Your task to perform on an android device: empty trash in google photos Image 0: 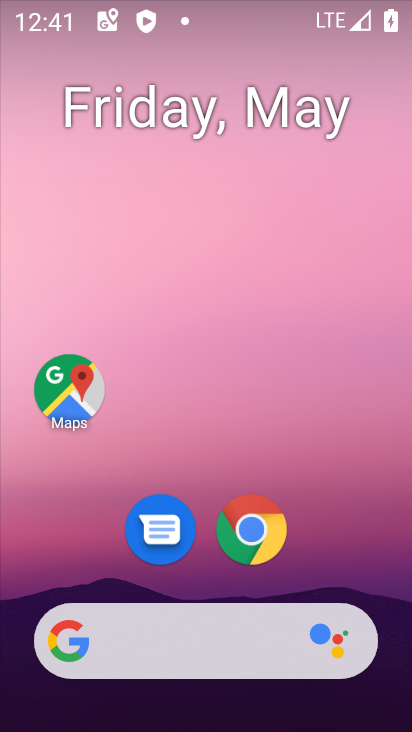
Step 0: drag from (324, 557) to (110, 173)
Your task to perform on an android device: empty trash in google photos Image 1: 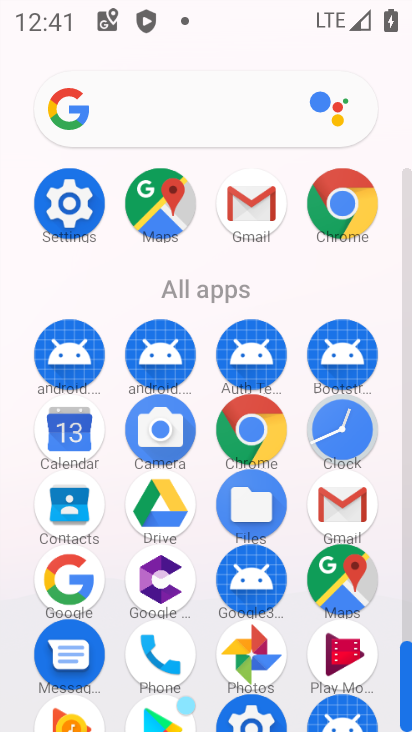
Step 1: click (260, 651)
Your task to perform on an android device: empty trash in google photos Image 2: 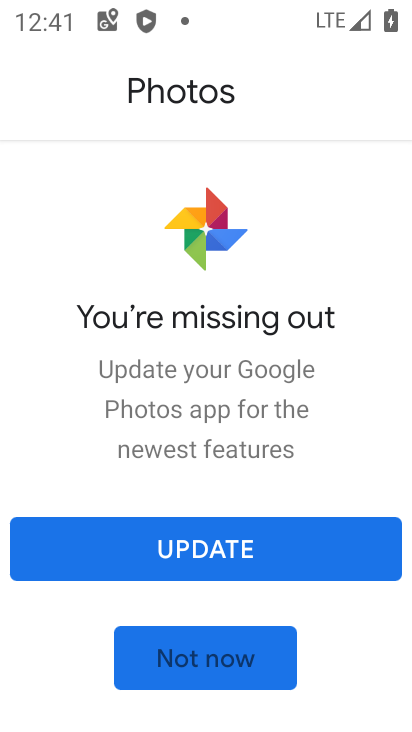
Step 2: click (196, 667)
Your task to perform on an android device: empty trash in google photos Image 3: 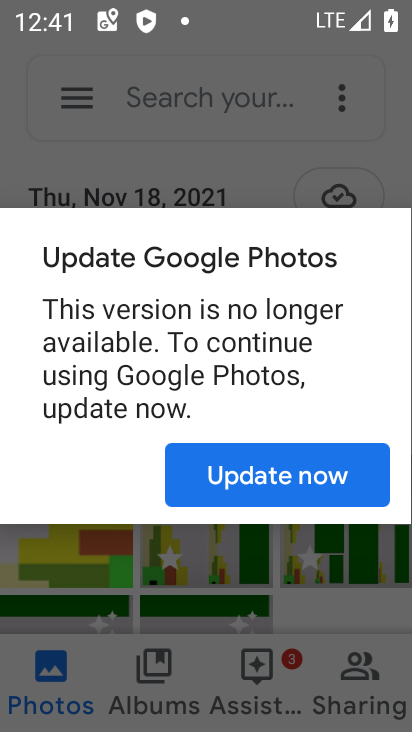
Step 3: click (242, 469)
Your task to perform on an android device: empty trash in google photos Image 4: 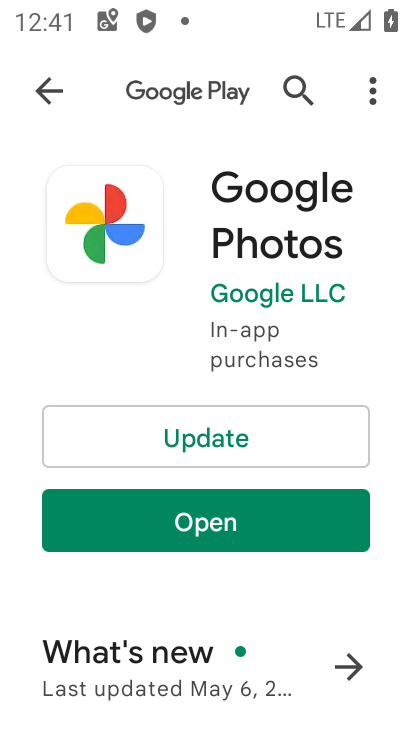
Step 4: press back button
Your task to perform on an android device: empty trash in google photos Image 5: 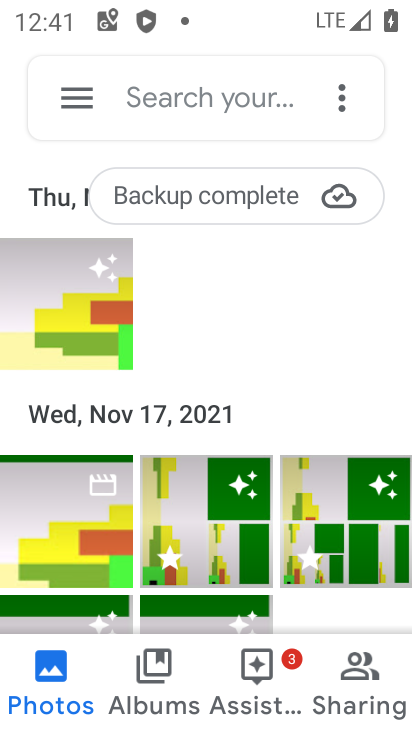
Step 5: click (78, 95)
Your task to perform on an android device: empty trash in google photos Image 6: 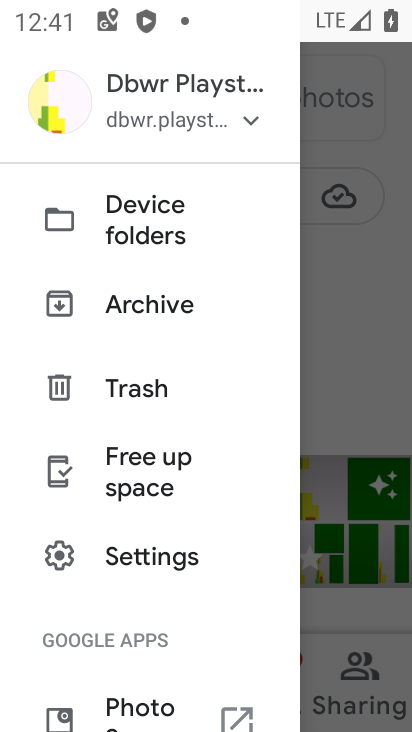
Step 6: click (140, 391)
Your task to perform on an android device: empty trash in google photos Image 7: 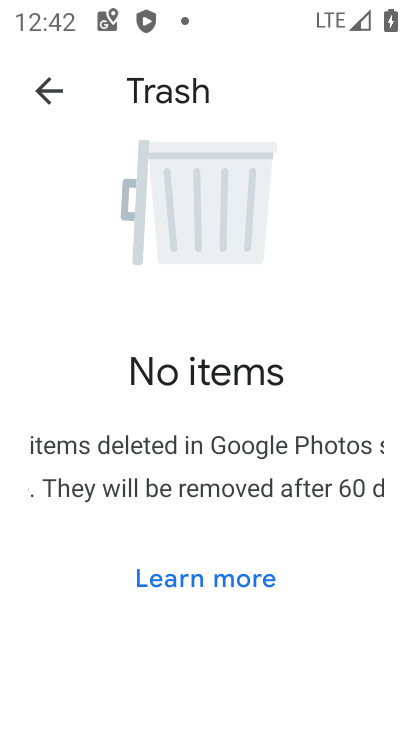
Step 7: task complete